Your task to perform on an android device: change your default location settings in chrome Image 0: 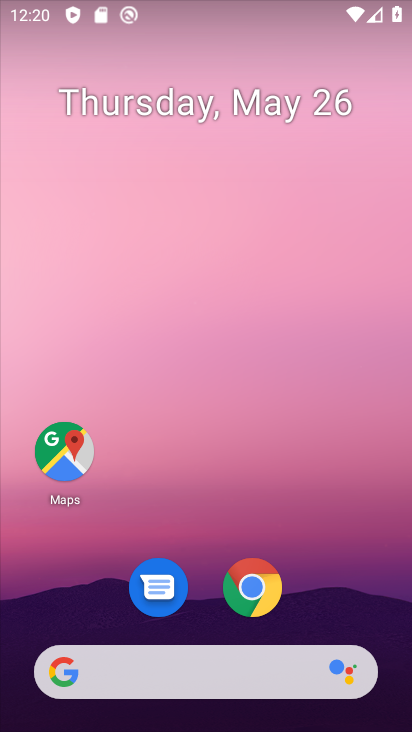
Step 0: drag from (380, 627) to (382, 298)
Your task to perform on an android device: change your default location settings in chrome Image 1: 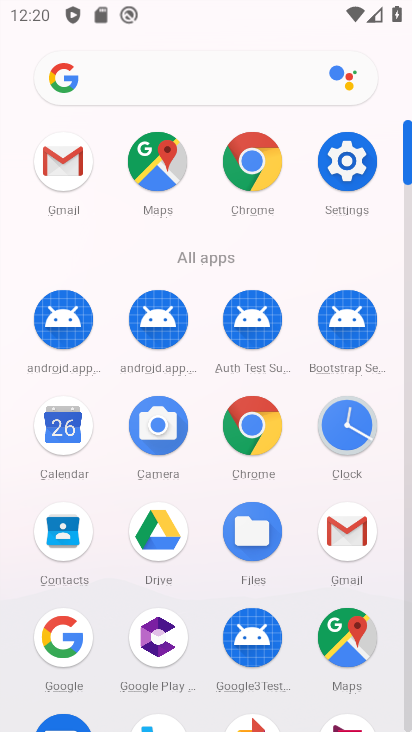
Step 1: click (265, 435)
Your task to perform on an android device: change your default location settings in chrome Image 2: 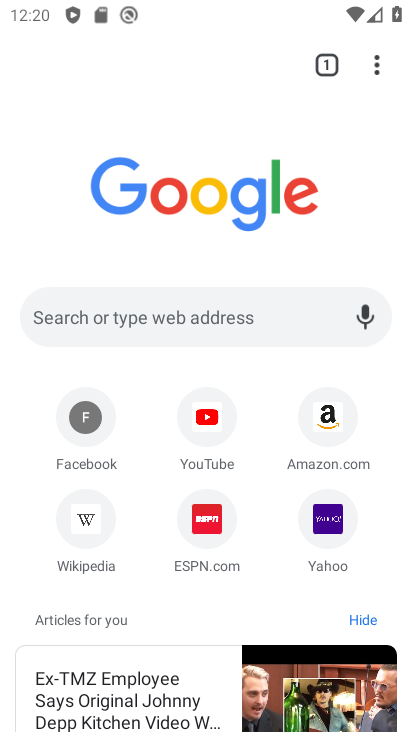
Step 2: click (375, 71)
Your task to perform on an android device: change your default location settings in chrome Image 3: 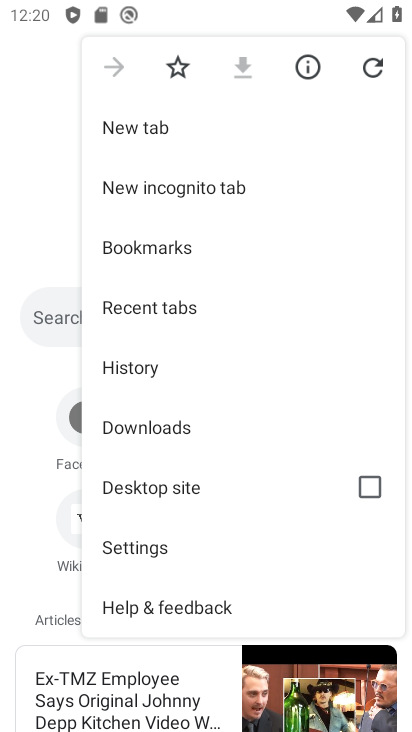
Step 3: click (166, 550)
Your task to perform on an android device: change your default location settings in chrome Image 4: 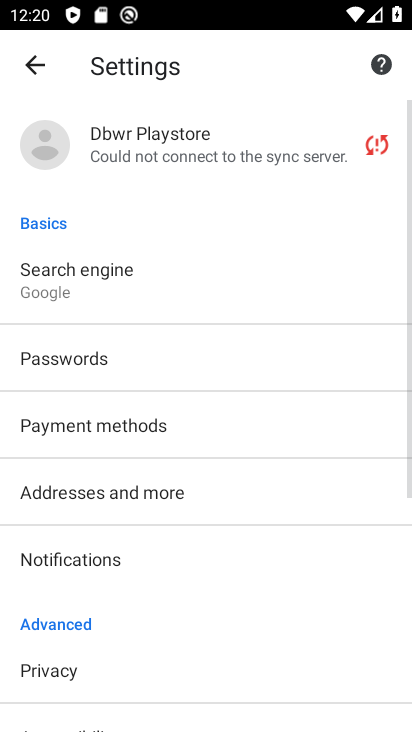
Step 4: drag from (239, 560) to (251, 503)
Your task to perform on an android device: change your default location settings in chrome Image 5: 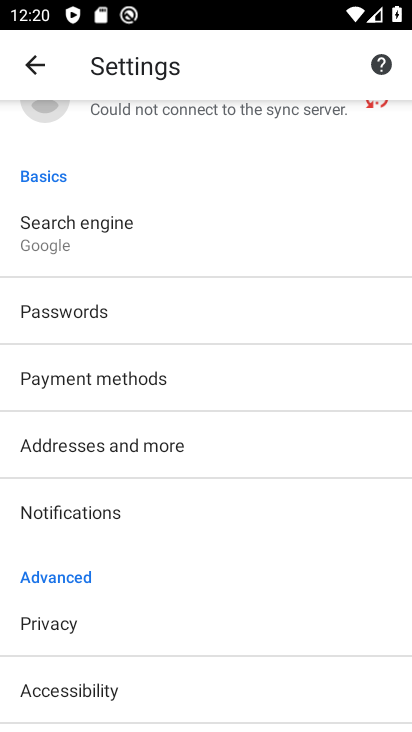
Step 5: drag from (251, 551) to (264, 494)
Your task to perform on an android device: change your default location settings in chrome Image 6: 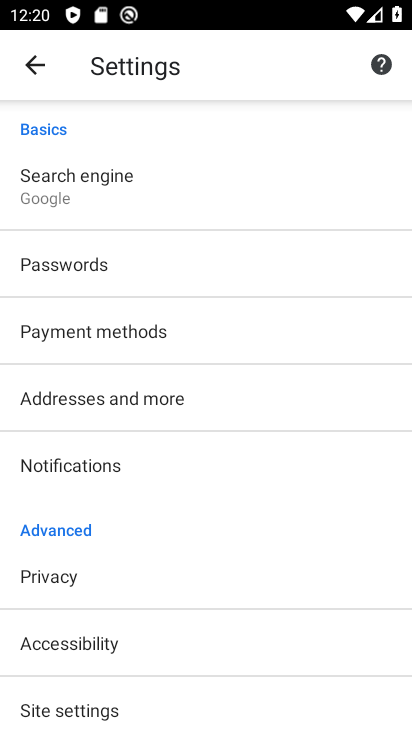
Step 6: drag from (270, 535) to (279, 496)
Your task to perform on an android device: change your default location settings in chrome Image 7: 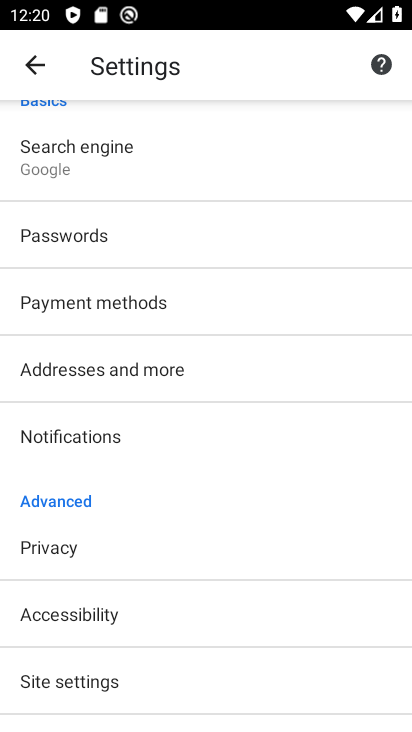
Step 7: drag from (272, 540) to (281, 490)
Your task to perform on an android device: change your default location settings in chrome Image 8: 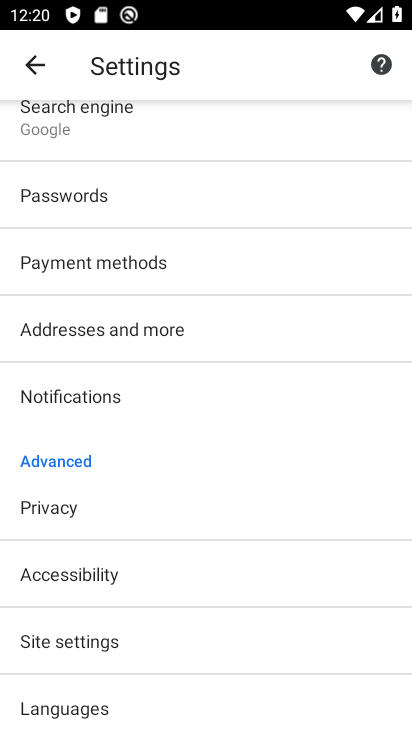
Step 8: drag from (286, 539) to (299, 474)
Your task to perform on an android device: change your default location settings in chrome Image 9: 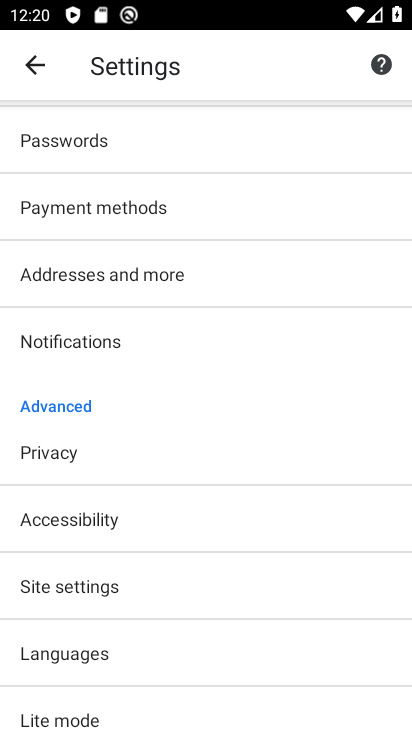
Step 9: drag from (281, 549) to (290, 489)
Your task to perform on an android device: change your default location settings in chrome Image 10: 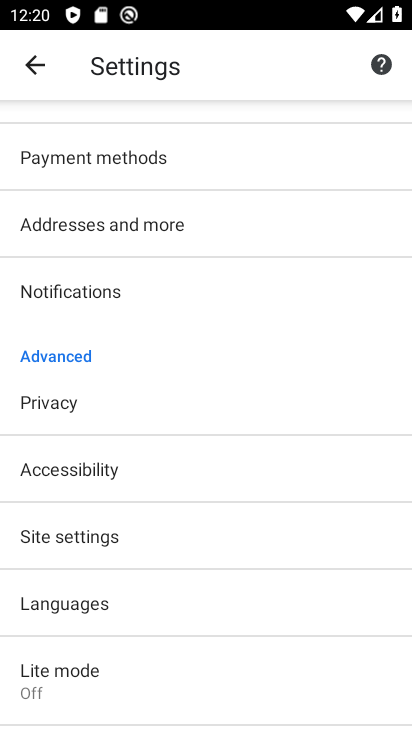
Step 10: drag from (278, 541) to (296, 487)
Your task to perform on an android device: change your default location settings in chrome Image 11: 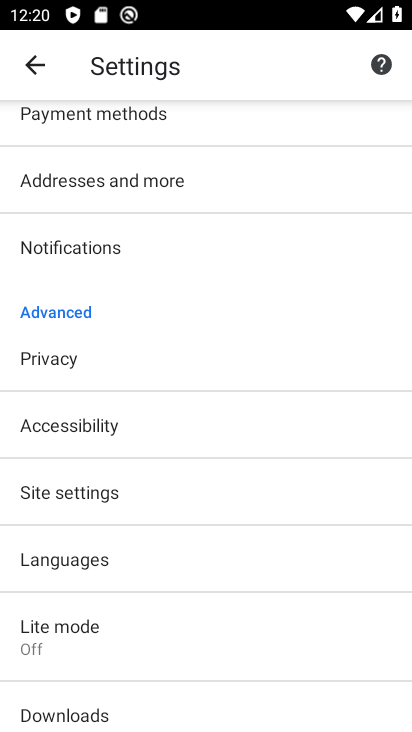
Step 11: drag from (283, 542) to (289, 493)
Your task to perform on an android device: change your default location settings in chrome Image 12: 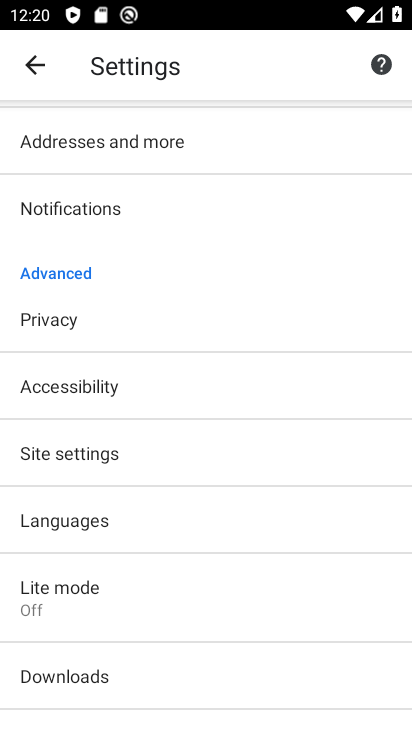
Step 12: drag from (277, 548) to (290, 494)
Your task to perform on an android device: change your default location settings in chrome Image 13: 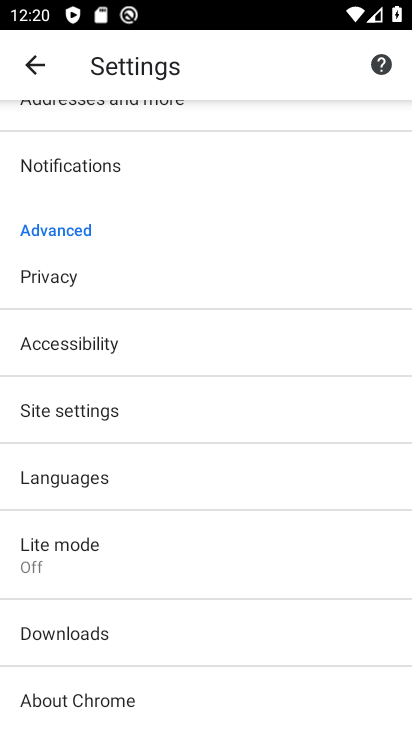
Step 13: drag from (277, 534) to (288, 476)
Your task to perform on an android device: change your default location settings in chrome Image 14: 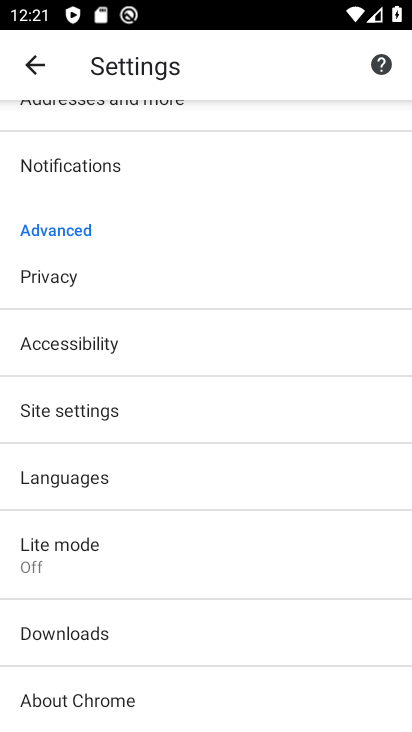
Step 14: click (235, 404)
Your task to perform on an android device: change your default location settings in chrome Image 15: 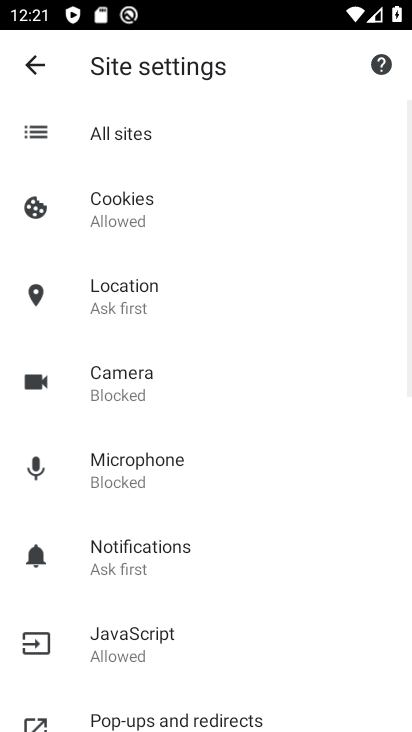
Step 15: drag from (243, 484) to (252, 433)
Your task to perform on an android device: change your default location settings in chrome Image 16: 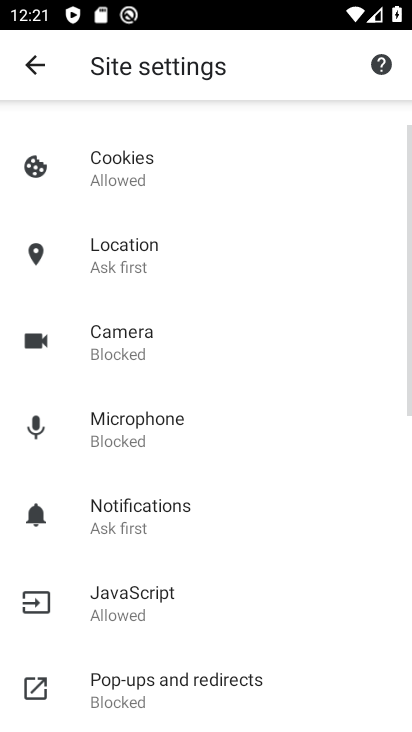
Step 16: drag from (263, 496) to (275, 444)
Your task to perform on an android device: change your default location settings in chrome Image 17: 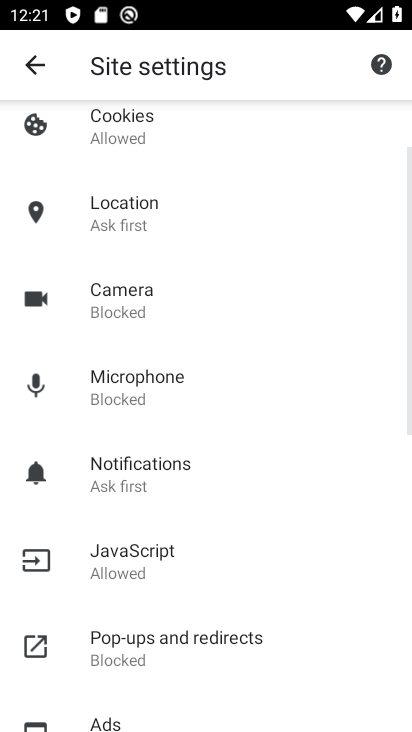
Step 17: drag from (279, 509) to (293, 453)
Your task to perform on an android device: change your default location settings in chrome Image 18: 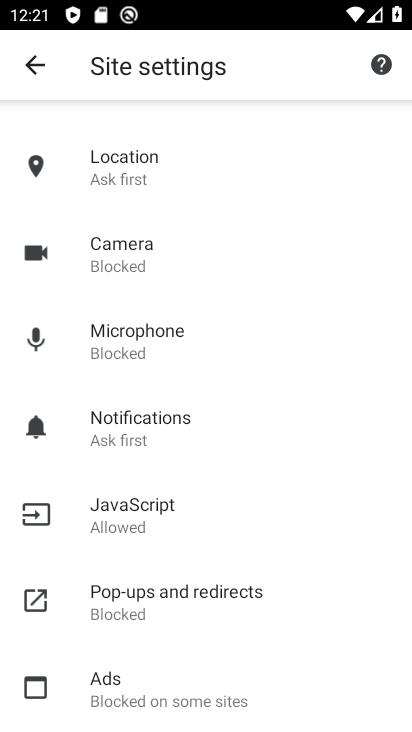
Step 18: drag from (297, 504) to (299, 464)
Your task to perform on an android device: change your default location settings in chrome Image 19: 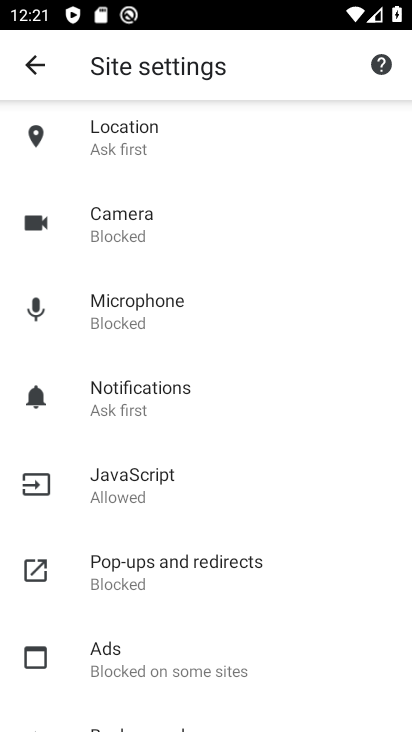
Step 19: drag from (307, 504) to (312, 467)
Your task to perform on an android device: change your default location settings in chrome Image 20: 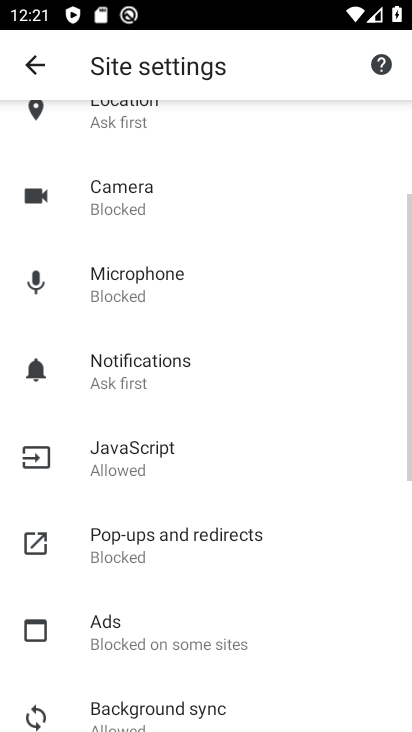
Step 20: drag from (310, 485) to (316, 437)
Your task to perform on an android device: change your default location settings in chrome Image 21: 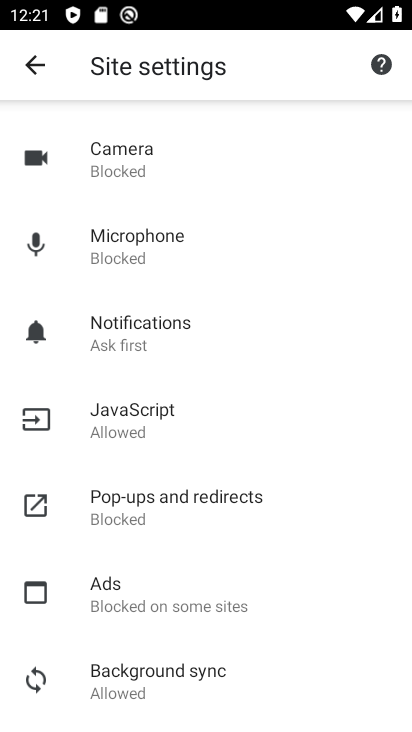
Step 21: drag from (347, 330) to (349, 370)
Your task to perform on an android device: change your default location settings in chrome Image 22: 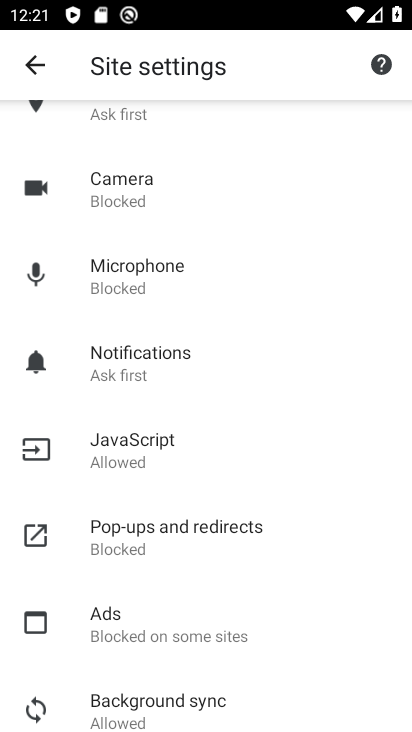
Step 22: drag from (349, 317) to (357, 365)
Your task to perform on an android device: change your default location settings in chrome Image 23: 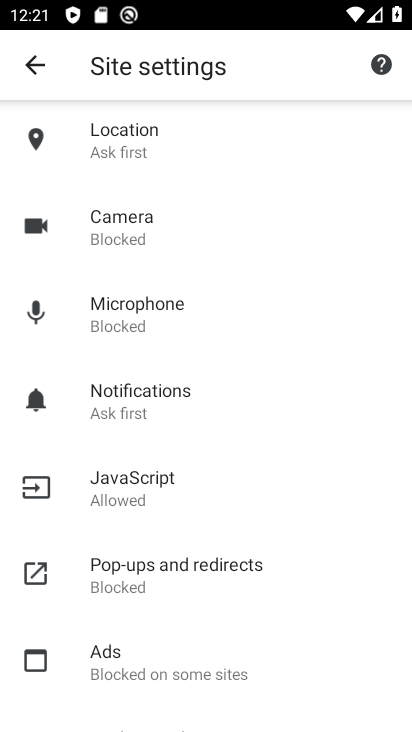
Step 23: drag from (349, 335) to (344, 373)
Your task to perform on an android device: change your default location settings in chrome Image 24: 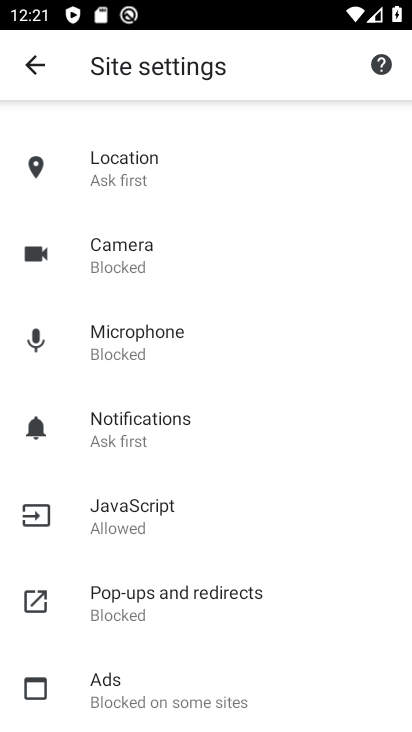
Step 24: drag from (345, 327) to (348, 363)
Your task to perform on an android device: change your default location settings in chrome Image 25: 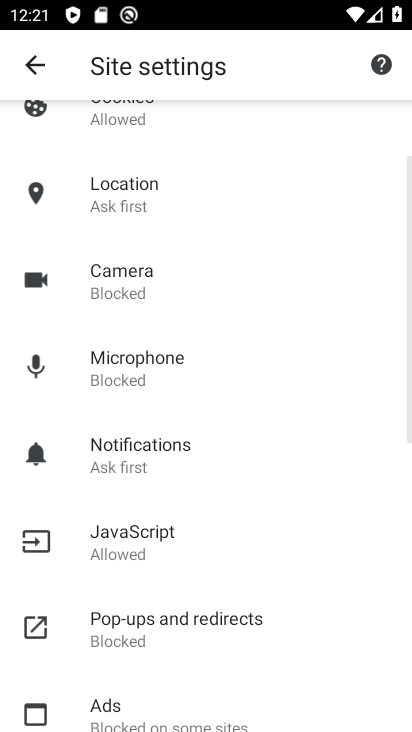
Step 25: drag from (360, 322) to (362, 367)
Your task to perform on an android device: change your default location settings in chrome Image 26: 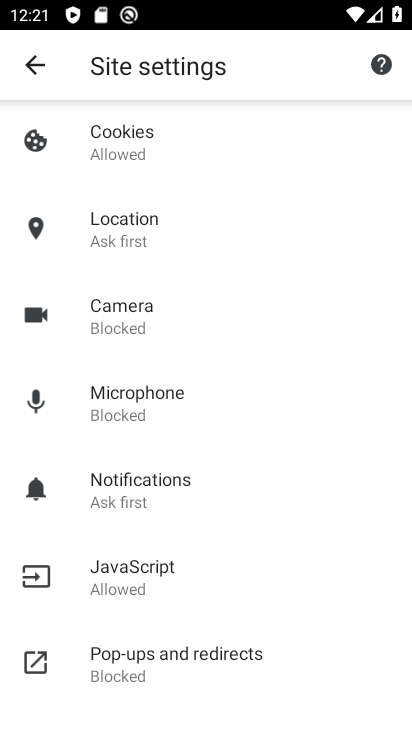
Step 26: drag from (326, 298) to (331, 339)
Your task to perform on an android device: change your default location settings in chrome Image 27: 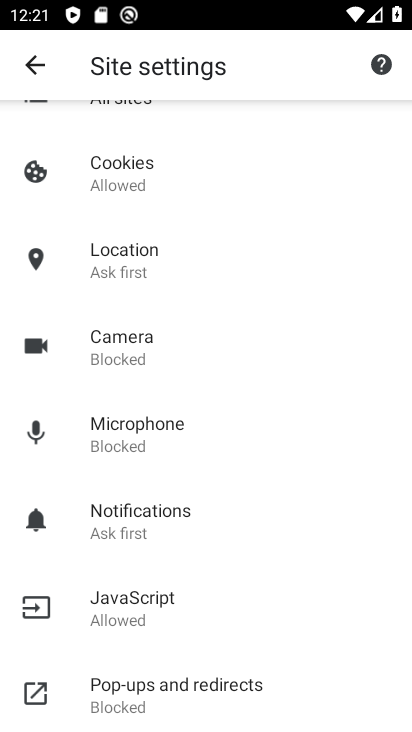
Step 27: drag from (342, 295) to (340, 352)
Your task to perform on an android device: change your default location settings in chrome Image 28: 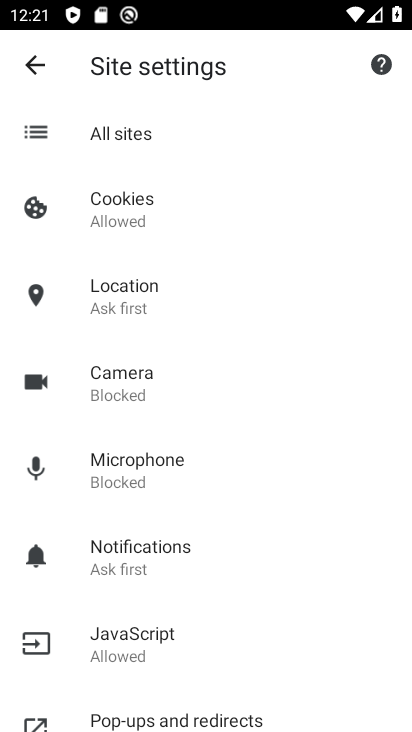
Step 28: drag from (305, 288) to (297, 359)
Your task to perform on an android device: change your default location settings in chrome Image 29: 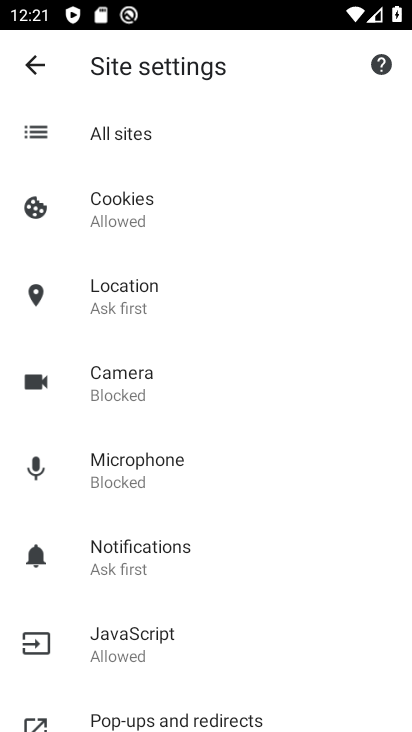
Step 29: click (170, 313)
Your task to perform on an android device: change your default location settings in chrome Image 30: 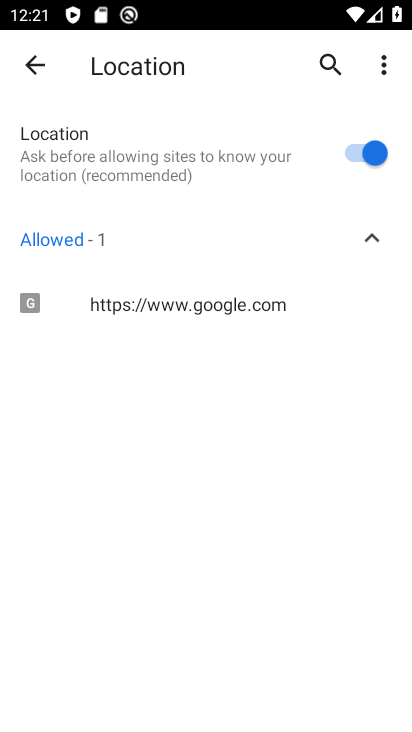
Step 30: click (365, 153)
Your task to perform on an android device: change your default location settings in chrome Image 31: 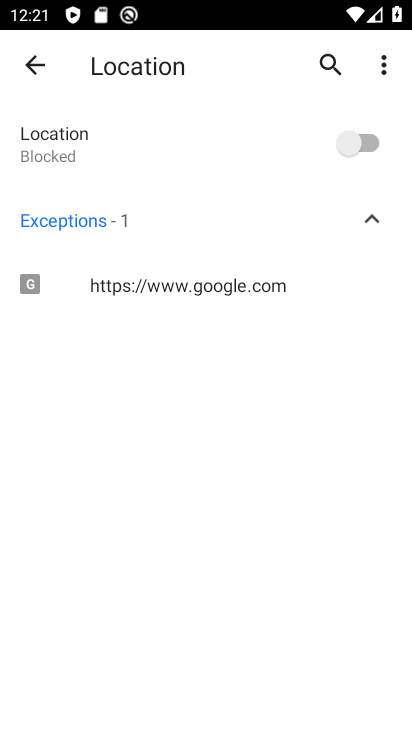
Step 31: task complete